Your task to perform on an android device: Go to wifi settings Image 0: 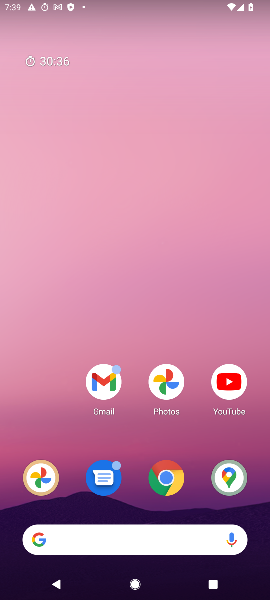
Step 0: drag from (139, 497) to (159, 131)
Your task to perform on an android device: Go to wifi settings Image 1: 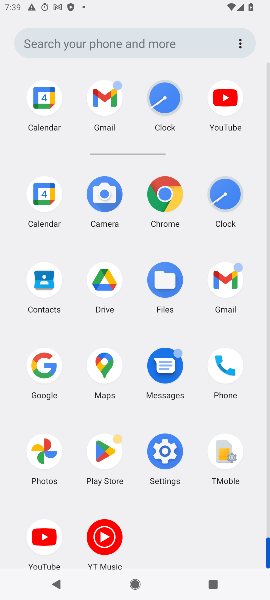
Step 1: click (157, 452)
Your task to perform on an android device: Go to wifi settings Image 2: 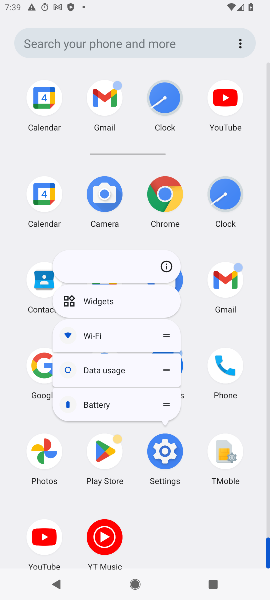
Step 2: click (170, 263)
Your task to perform on an android device: Go to wifi settings Image 3: 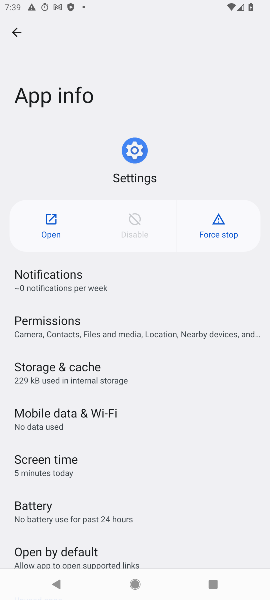
Step 3: click (42, 220)
Your task to perform on an android device: Go to wifi settings Image 4: 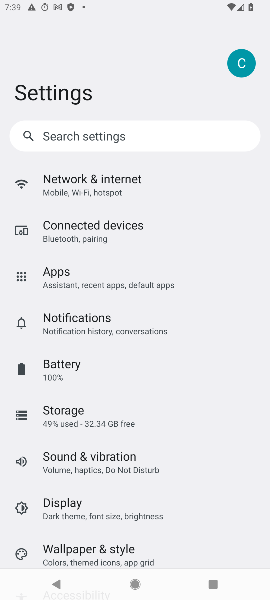
Step 4: click (79, 188)
Your task to perform on an android device: Go to wifi settings Image 5: 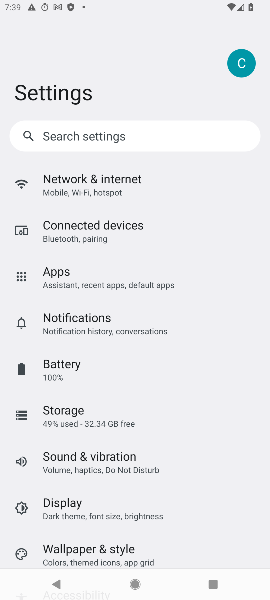
Step 5: click (79, 188)
Your task to perform on an android device: Go to wifi settings Image 6: 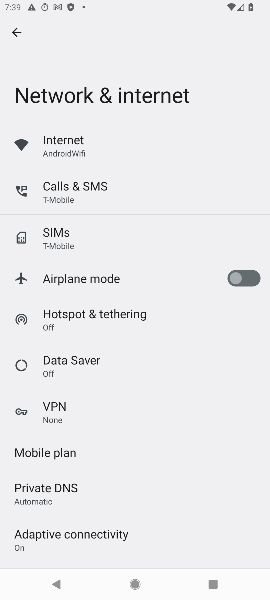
Step 6: click (125, 151)
Your task to perform on an android device: Go to wifi settings Image 7: 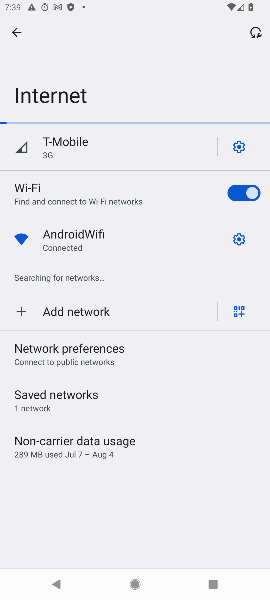
Step 7: click (237, 239)
Your task to perform on an android device: Go to wifi settings Image 8: 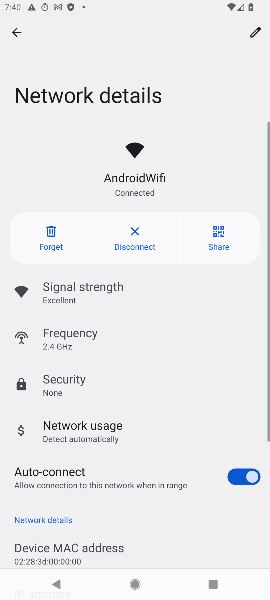
Step 8: task complete